Your task to perform on an android device: Go to network settings Image 0: 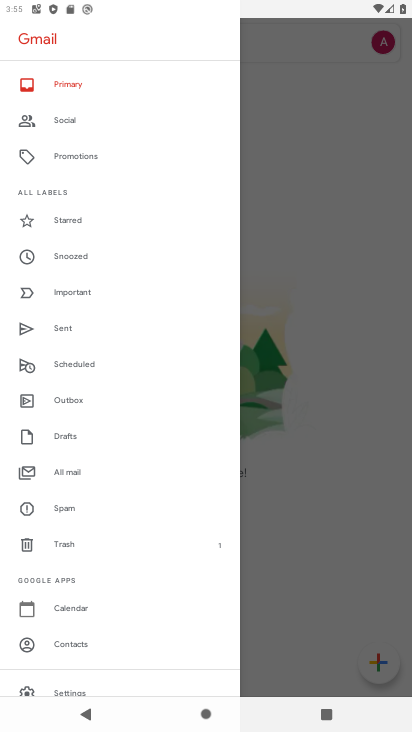
Step 0: press home button
Your task to perform on an android device: Go to network settings Image 1: 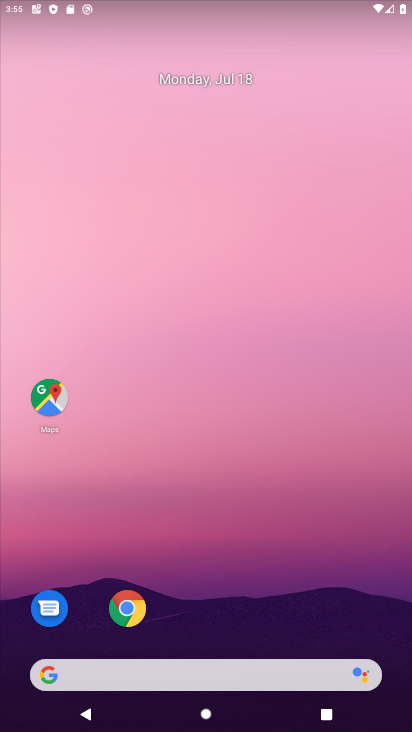
Step 1: drag from (241, 524) to (263, 148)
Your task to perform on an android device: Go to network settings Image 2: 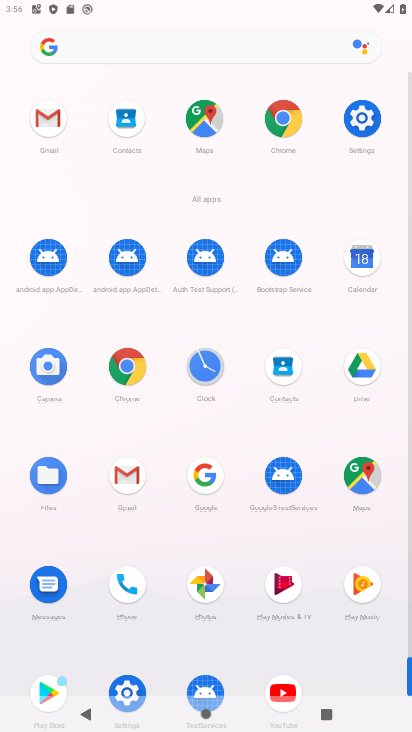
Step 2: click (358, 120)
Your task to perform on an android device: Go to network settings Image 3: 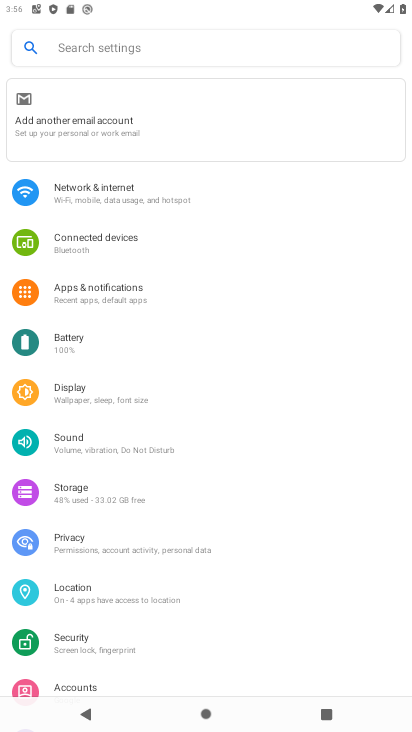
Step 3: click (89, 198)
Your task to perform on an android device: Go to network settings Image 4: 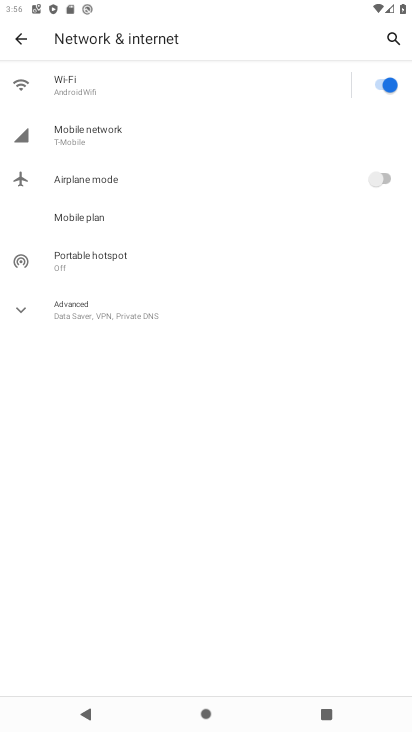
Step 4: task complete